Your task to perform on an android device: change keyboard looks Image 0: 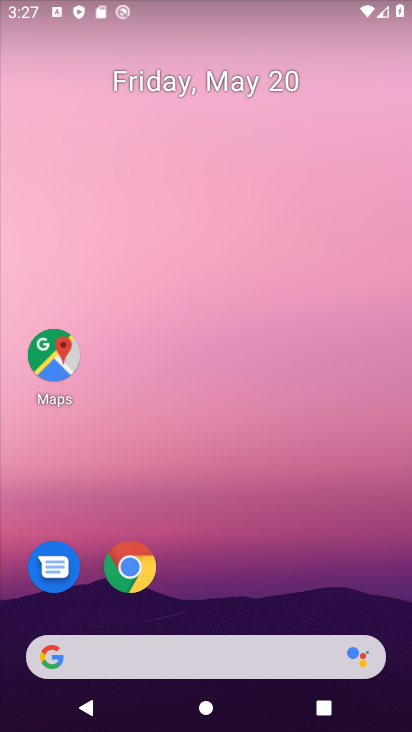
Step 0: drag from (321, 556) to (288, 117)
Your task to perform on an android device: change keyboard looks Image 1: 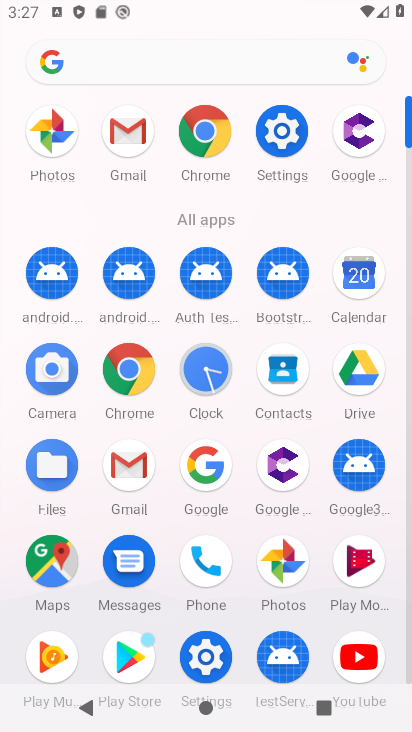
Step 1: click (288, 120)
Your task to perform on an android device: change keyboard looks Image 2: 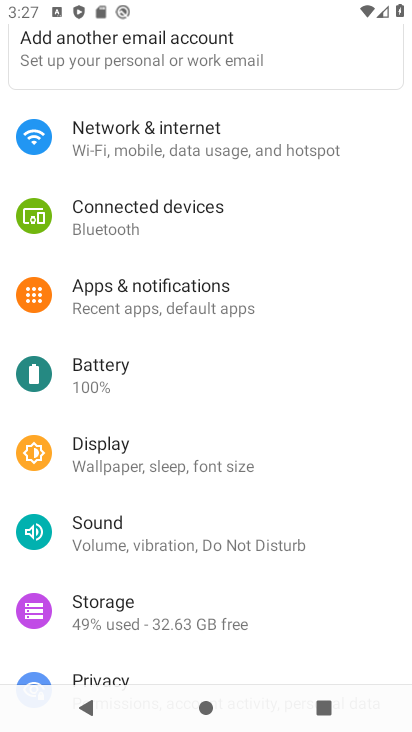
Step 2: drag from (212, 648) to (148, 251)
Your task to perform on an android device: change keyboard looks Image 3: 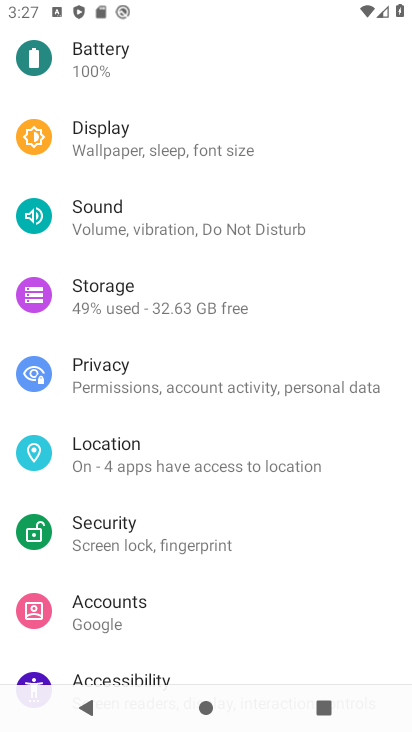
Step 3: drag from (200, 616) to (165, 82)
Your task to perform on an android device: change keyboard looks Image 4: 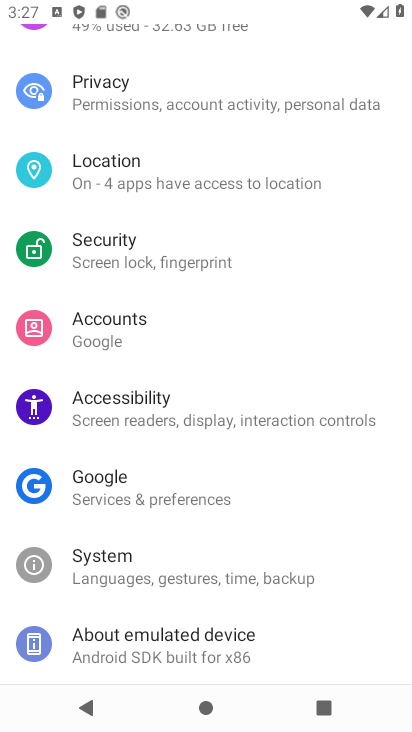
Step 4: drag from (253, 616) to (226, 252)
Your task to perform on an android device: change keyboard looks Image 5: 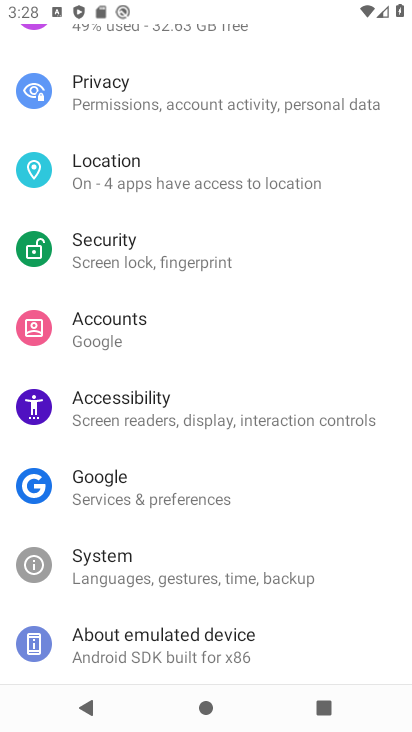
Step 5: click (170, 651)
Your task to perform on an android device: change keyboard looks Image 6: 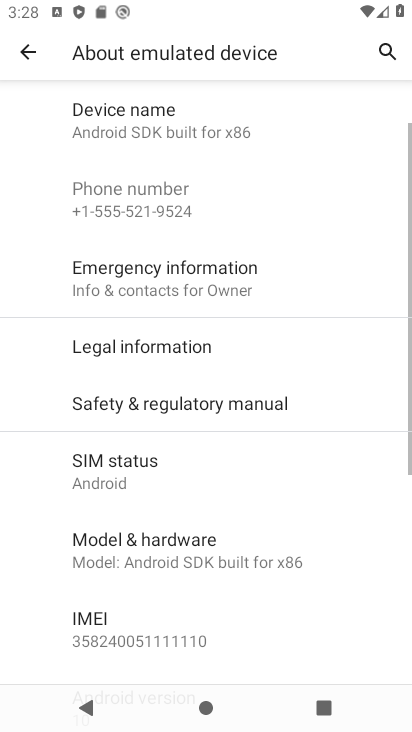
Step 6: drag from (246, 609) to (270, 231)
Your task to perform on an android device: change keyboard looks Image 7: 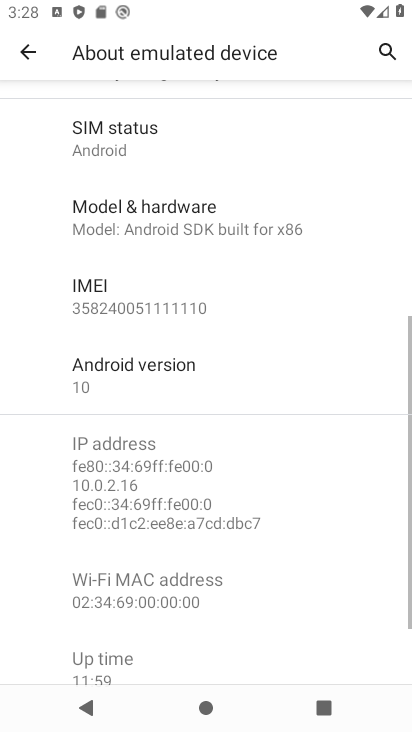
Step 7: drag from (219, 601) to (177, 206)
Your task to perform on an android device: change keyboard looks Image 8: 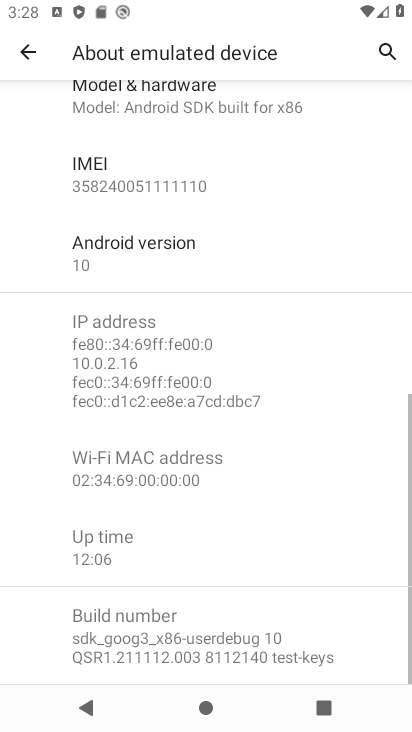
Step 8: drag from (186, 216) to (252, 633)
Your task to perform on an android device: change keyboard looks Image 9: 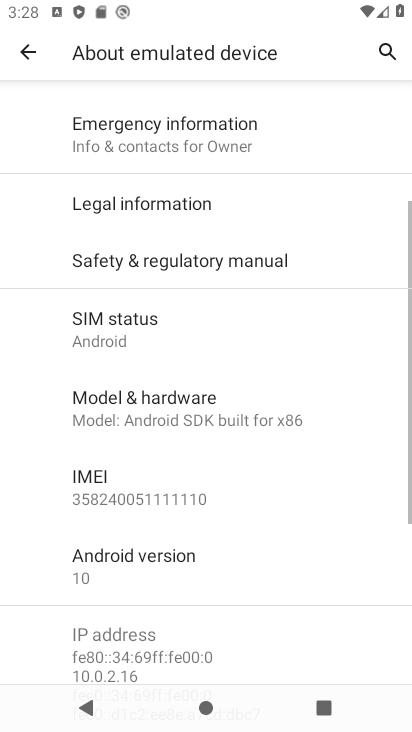
Step 9: drag from (258, 318) to (249, 633)
Your task to perform on an android device: change keyboard looks Image 10: 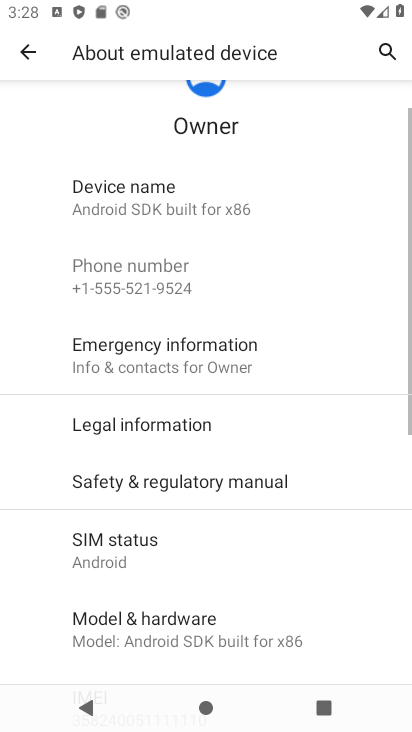
Step 10: click (18, 56)
Your task to perform on an android device: change keyboard looks Image 11: 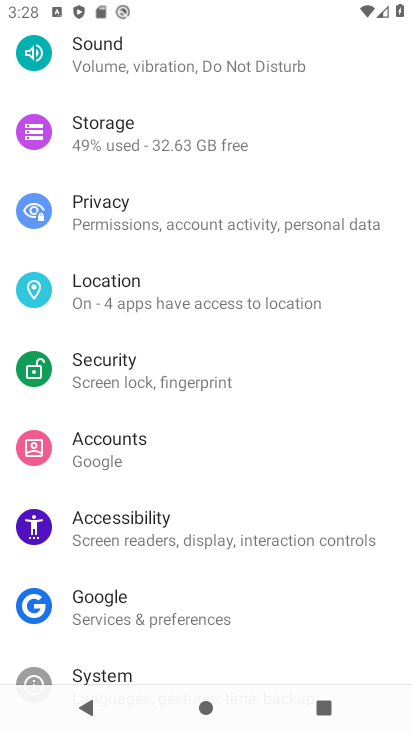
Step 11: drag from (176, 659) to (244, 101)
Your task to perform on an android device: change keyboard looks Image 12: 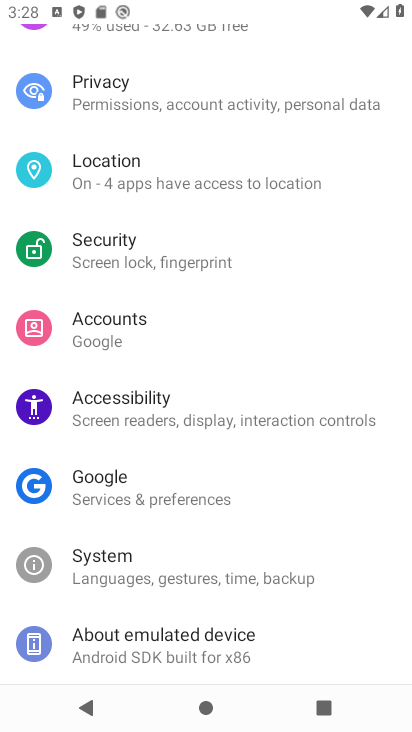
Step 12: click (190, 559)
Your task to perform on an android device: change keyboard looks Image 13: 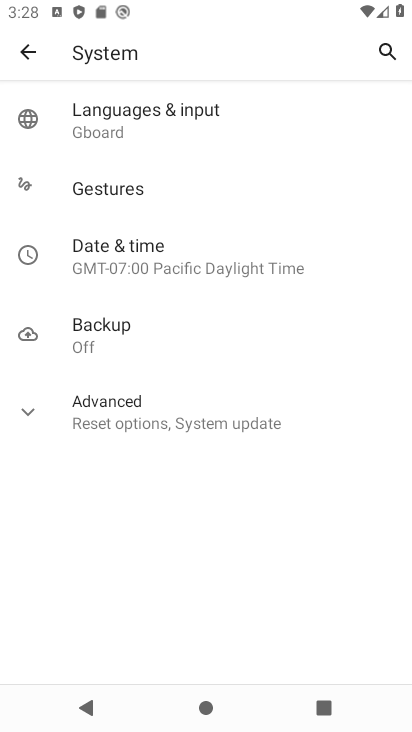
Step 13: click (118, 116)
Your task to perform on an android device: change keyboard looks Image 14: 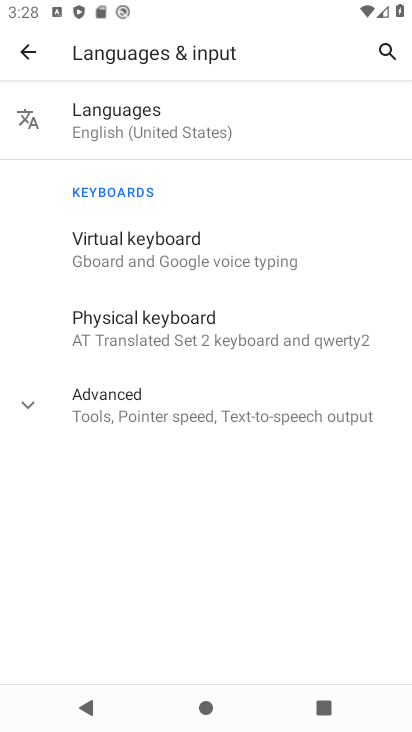
Step 14: click (121, 248)
Your task to perform on an android device: change keyboard looks Image 15: 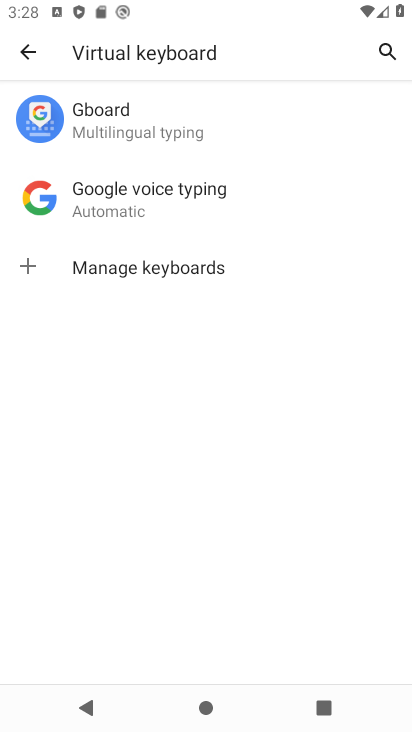
Step 15: click (107, 120)
Your task to perform on an android device: change keyboard looks Image 16: 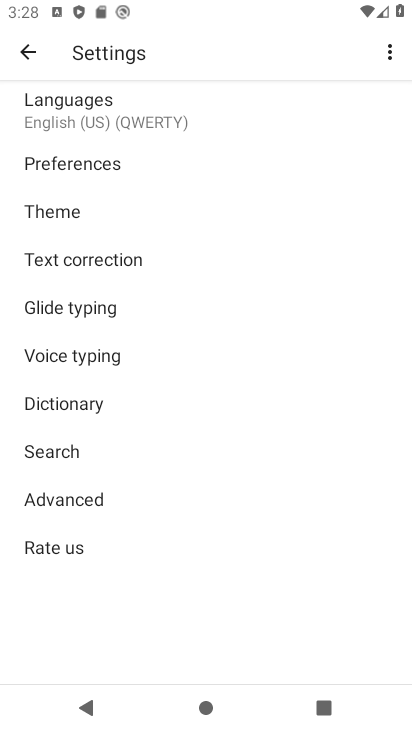
Step 16: click (75, 228)
Your task to perform on an android device: change keyboard looks Image 17: 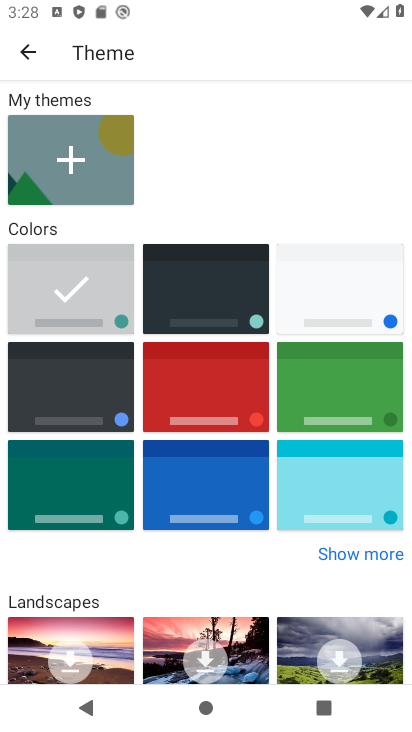
Step 17: click (212, 305)
Your task to perform on an android device: change keyboard looks Image 18: 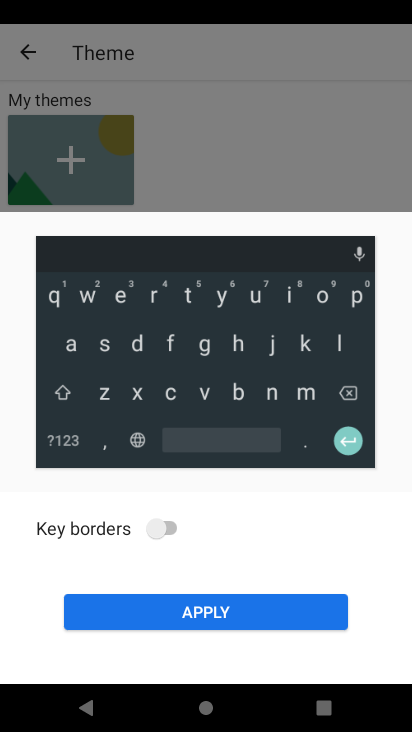
Step 18: click (205, 607)
Your task to perform on an android device: change keyboard looks Image 19: 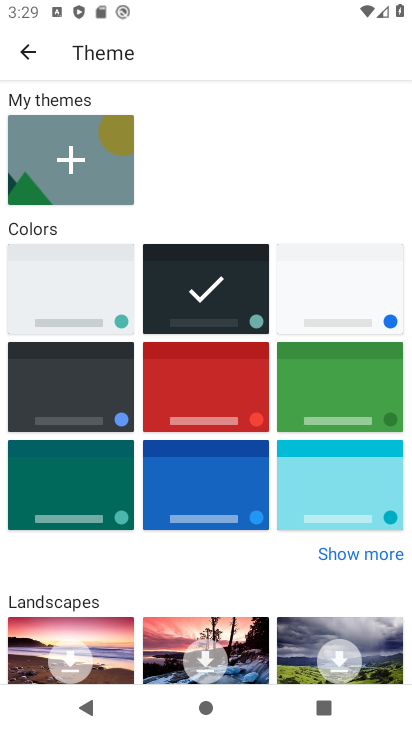
Step 19: task complete